Your task to perform on an android device: Go to Maps Image 0: 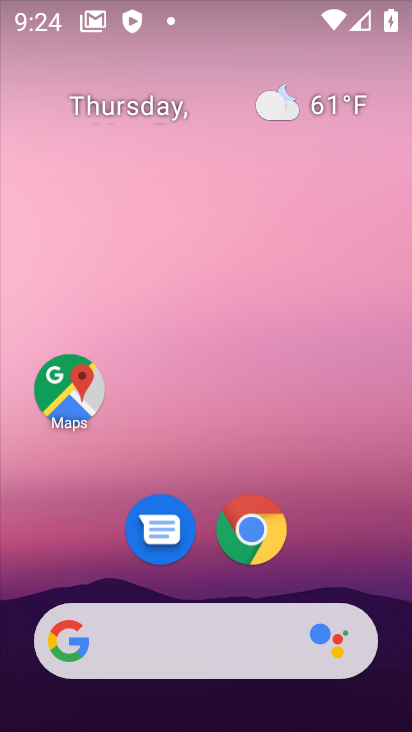
Step 0: click (93, 368)
Your task to perform on an android device: Go to Maps Image 1: 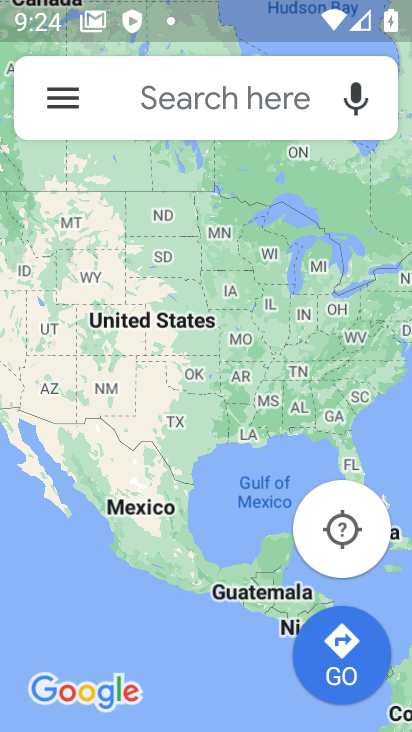
Step 1: task complete